Your task to perform on an android device: turn on improve location accuracy Image 0: 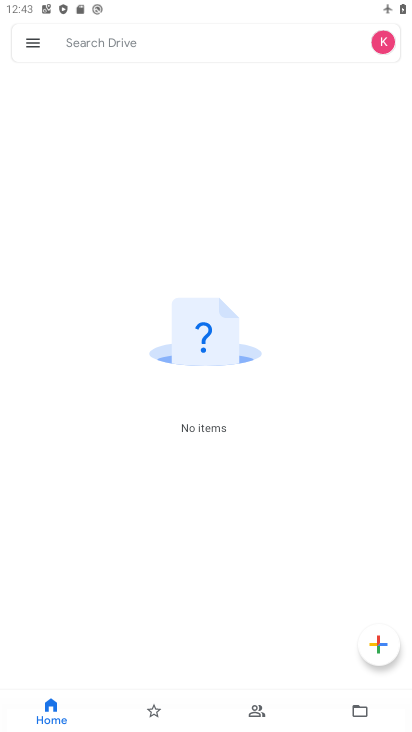
Step 0: press home button
Your task to perform on an android device: turn on improve location accuracy Image 1: 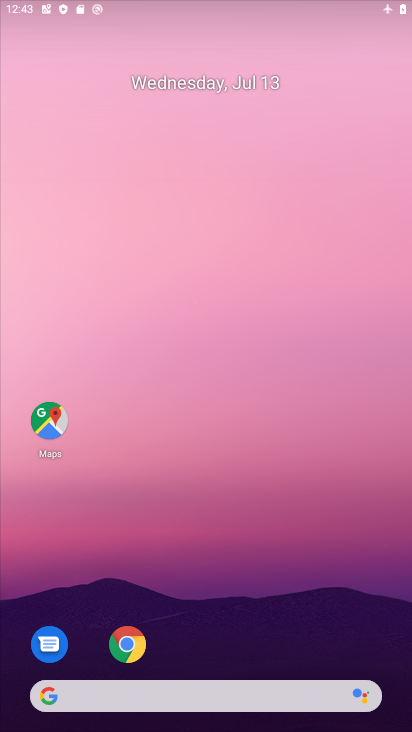
Step 1: drag from (294, 616) to (243, 95)
Your task to perform on an android device: turn on improve location accuracy Image 2: 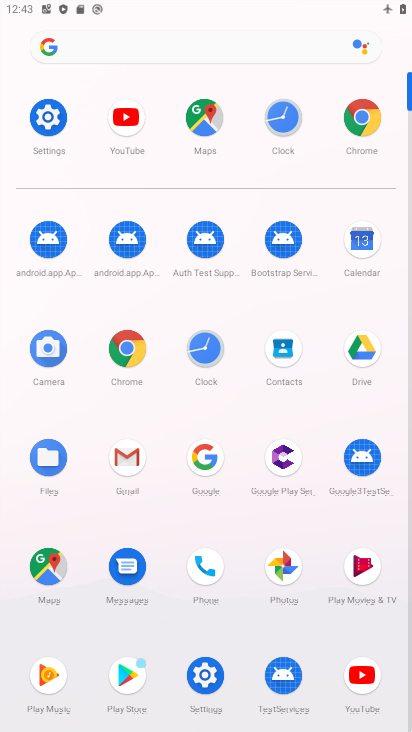
Step 2: click (44, 118)
Your task to perform on an android device: turn on improve location accuracy Image 3: 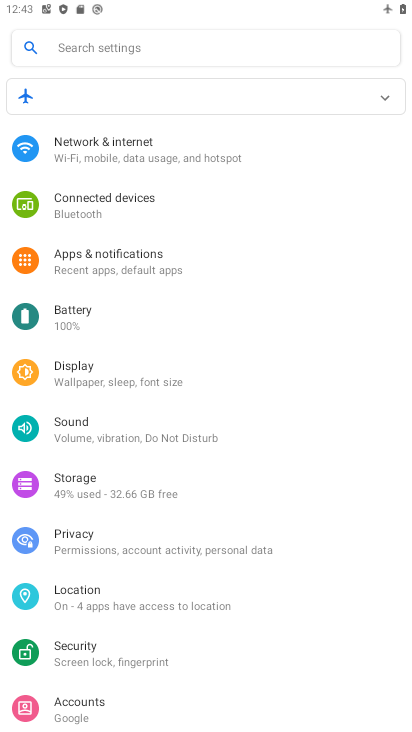
Step 3: click (131, 602)
Your task to perform on an android device: turn on improve location accuracy Image 4: 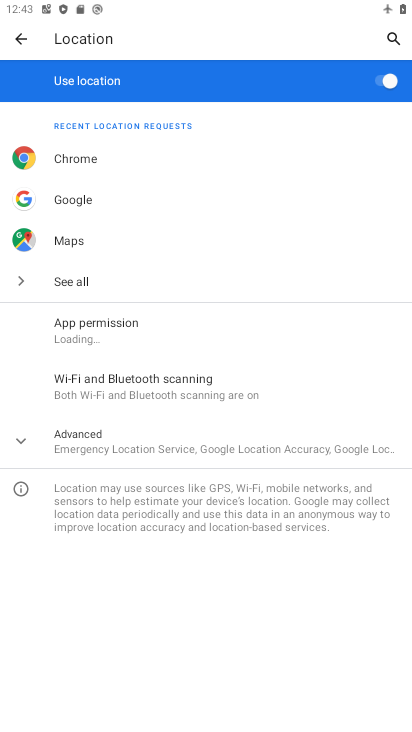
Step 4: click (152, 453)
Your task to perform on an android device: turn on improve location accuracy Image 5: 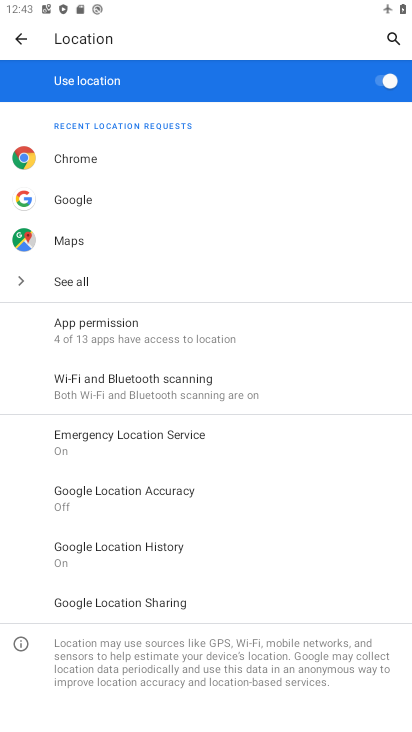
Step 5: click (156, 494)
Your task to perform on an android device: turn on improve location accuracy Image 6: 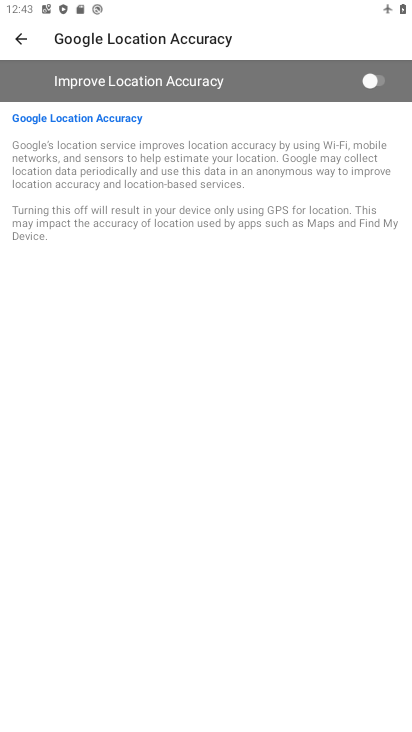
Step 6: click (380, 75)
Your task to perform on an android device: turn on improve location accuracy Image 7: 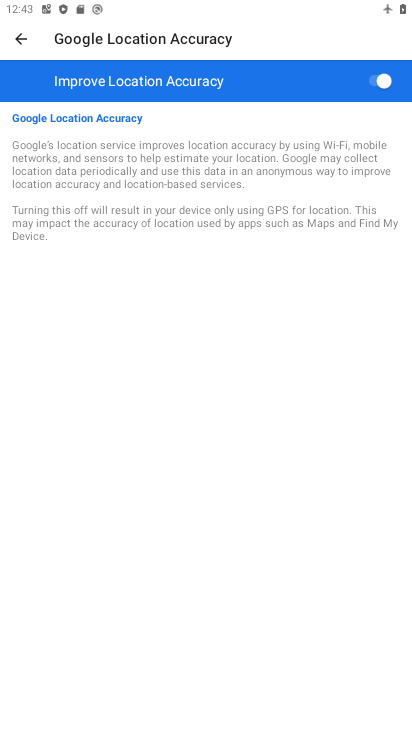
Step 7: task complete